Your task to perform on an android device: set the timer Image 0: 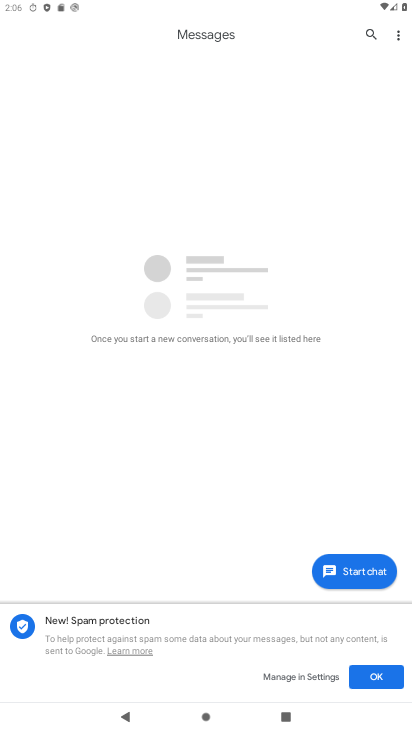
Step 0: press home button
Your task to perform on an android device: set the timer Image 1: 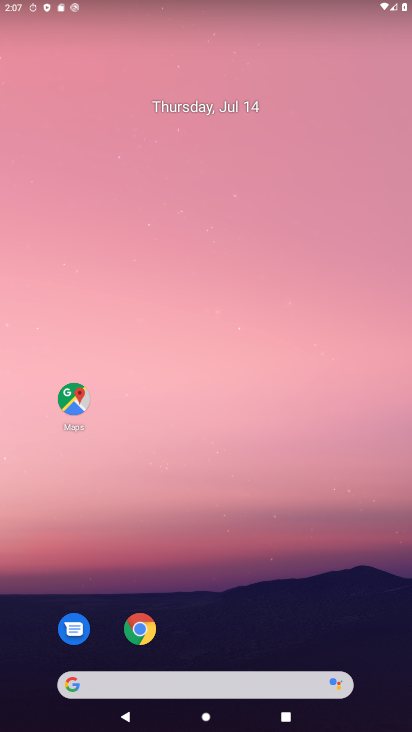
Step 1: drag from (209, 652) to (255, 126)
Your task to perform on an android device: set the timer Image 2: 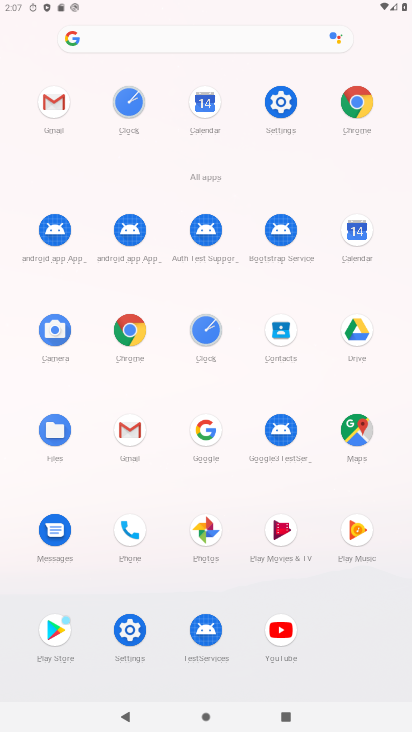
Step 2: click (204, 329)
Your task to perform on an android device: set the timer Image 3: 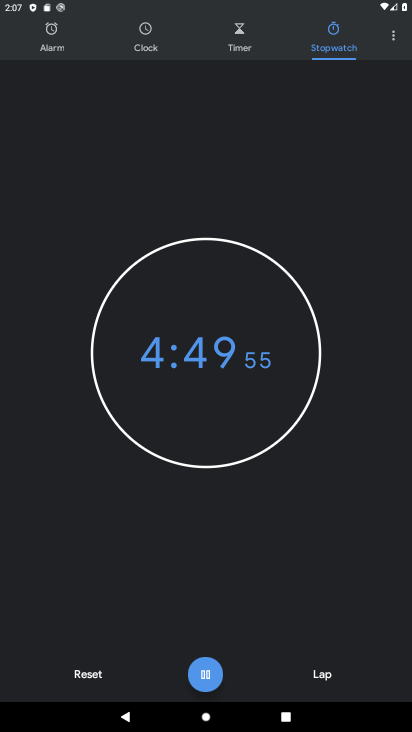
Step 3: click (88, 683)
Your task to perform on an android device: set the timer Image 4: 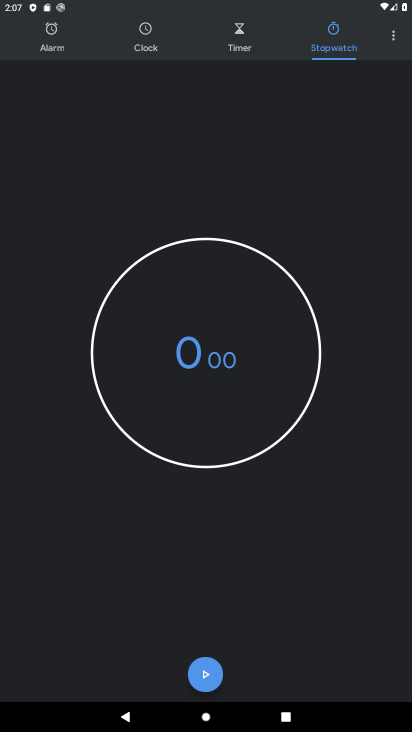
Step 4: click (236, 34)
Your task to perform on an android device: set the timer Image 5: 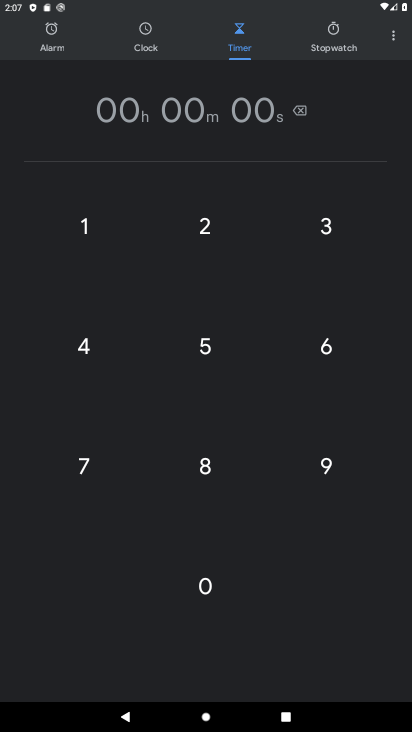
Step 5: click (70, 478)
Your task to perform on an android device: set the timer Image 6: 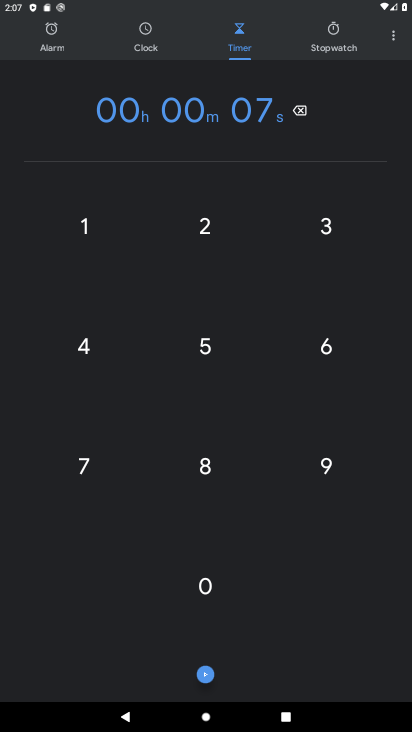
Step 6: click (211, 343)
Your task to perform on an android device: set the timer Image 7: 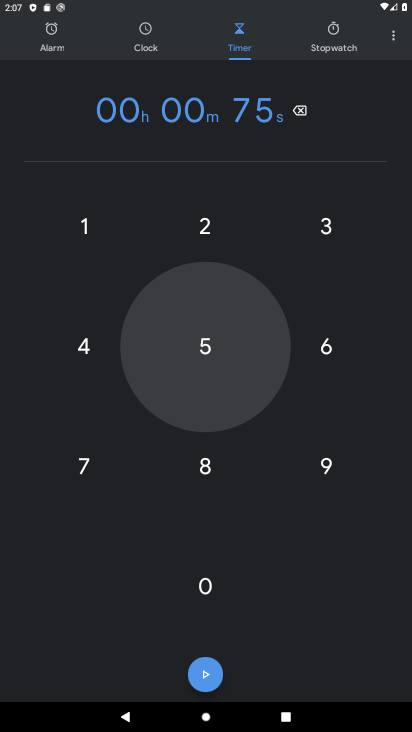
Step 7: click (72, 348)
Your task to perform on an android device: set the timer Image 8: 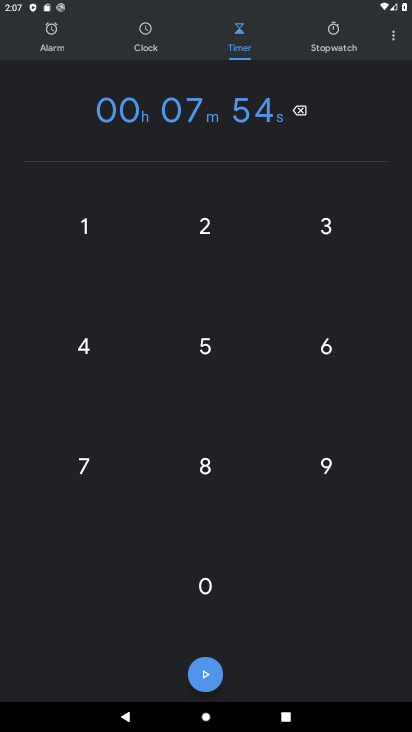
Step 8: click (211, 682)
Your task to perform on an android device: set the timer Image 9: 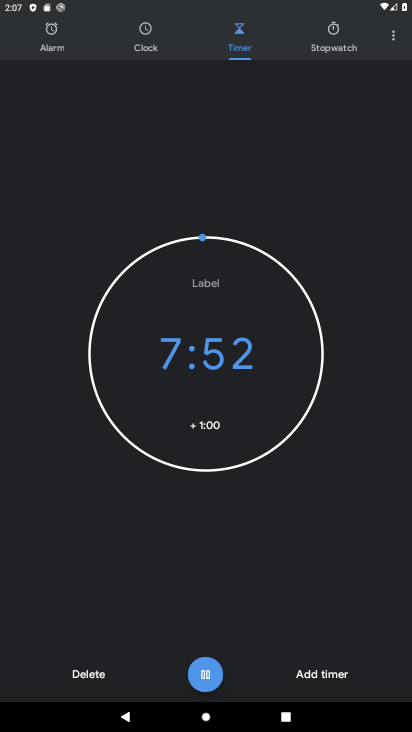
Step 9: task complete